Your task to perform on an android device: Open Amazon Image 0: 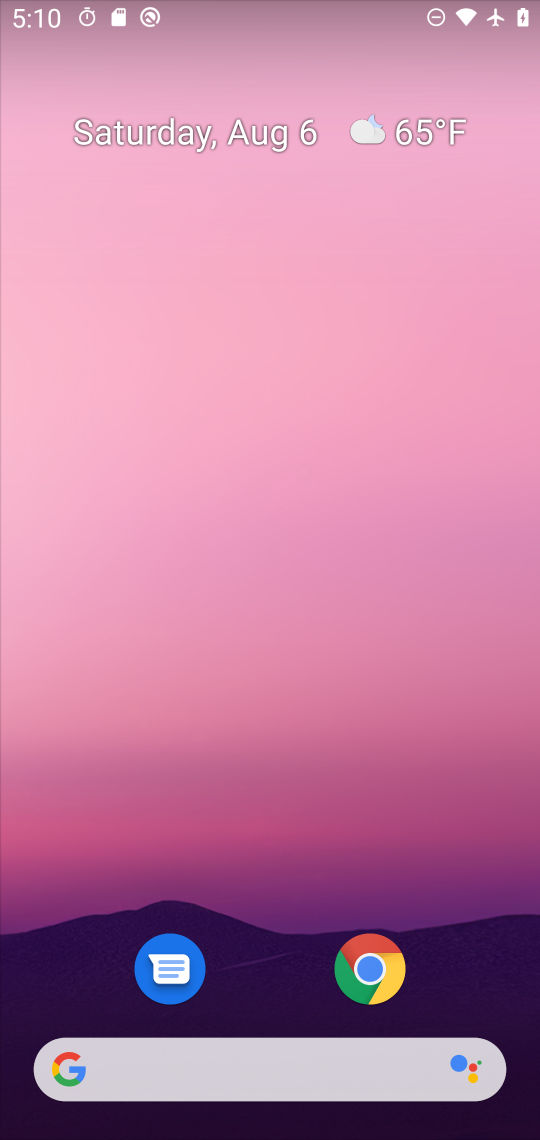
Step 0: click (71, 1077)
Your task to perform on an android device: Open Amazon Image 1: 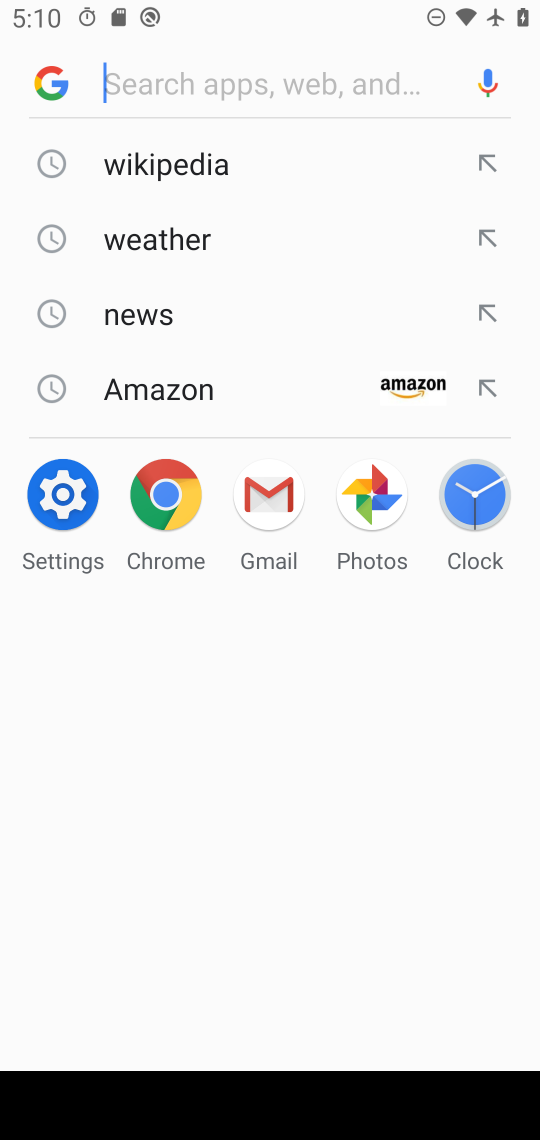
Step 1: click (173, 398)
Your task to perform on an android device: Open Amazon Image 2: 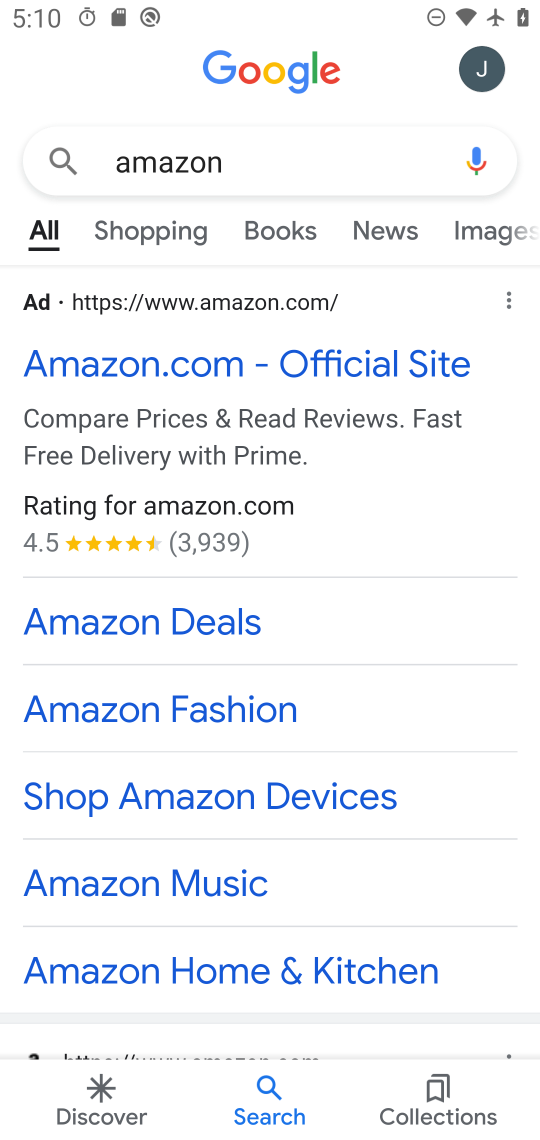
Step 2: click (168, 365)
Your task to perform on an android device: Open Amazon Image 3: 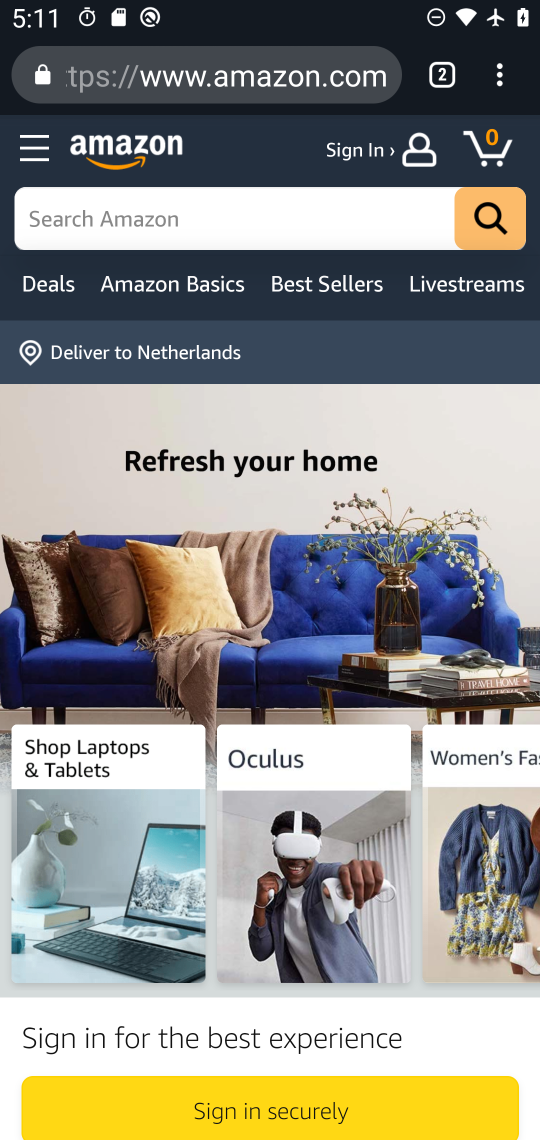
Step 3: task complete